Your task to perform on an android device: Search for sushi restaurants on Maps Image 0: 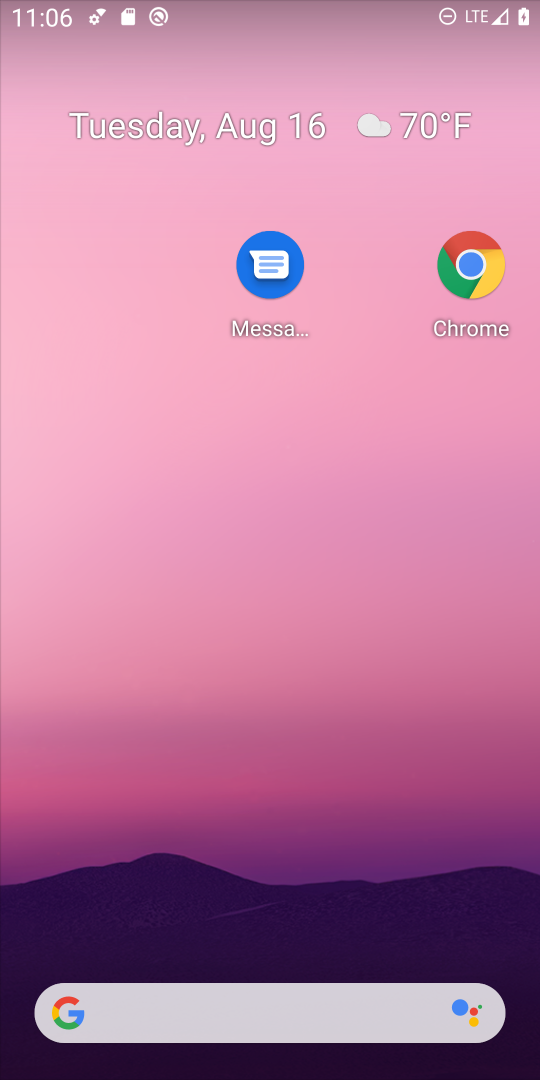
Step 0: drag from (278, 323) to (283, 115)
Your task to perform on an android device: Search for sushi restaurants on Maps Image 1: 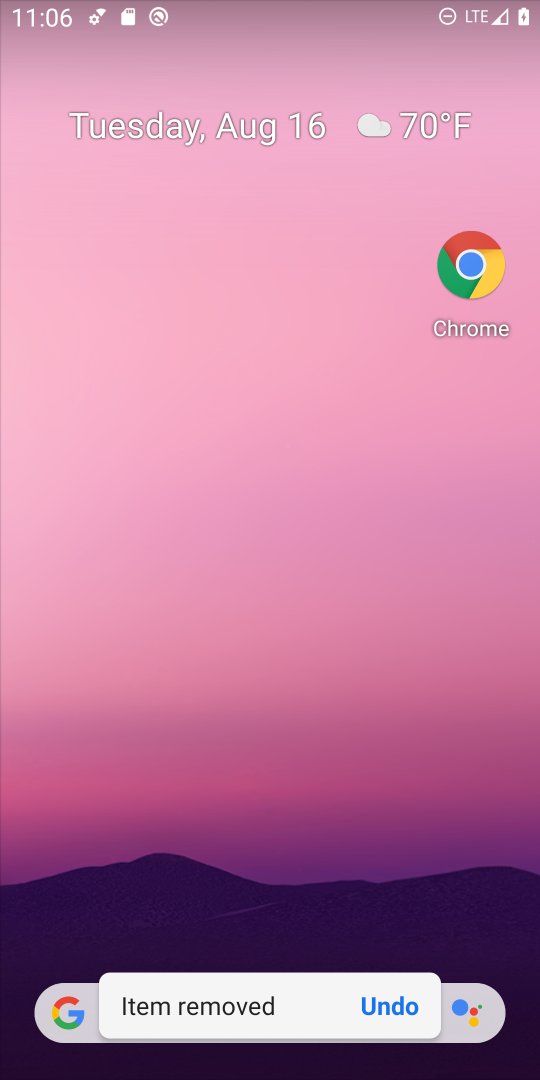
Step 1: drag from (318, 705) to (332, 72)
Your task to perform on an android device: Search for sushi restaurants on Maps Image 2: 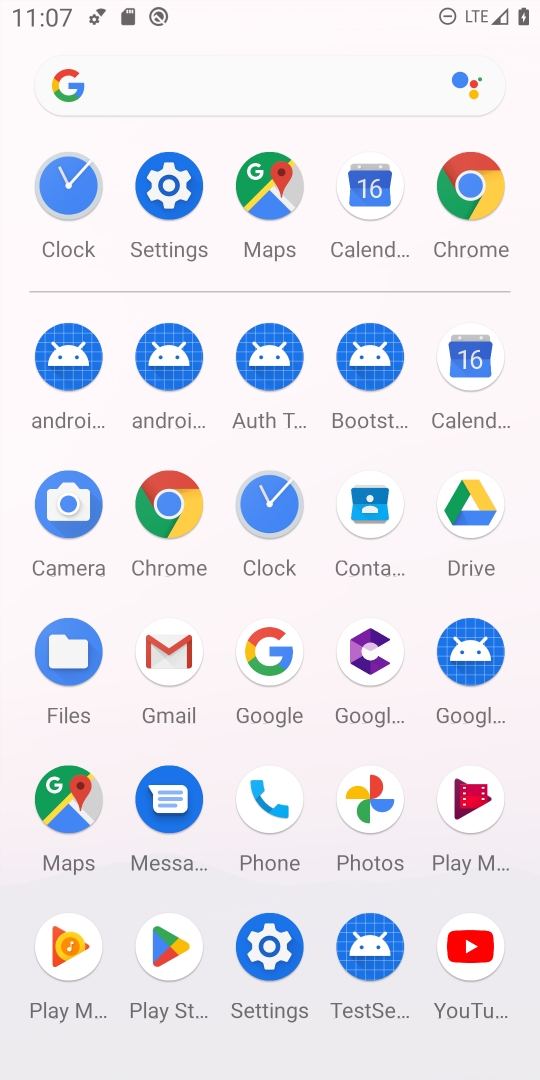
Step 2: click (76, 823)
Your task to perform on an android device: Search for sushi restaurants on Maps Image 3: 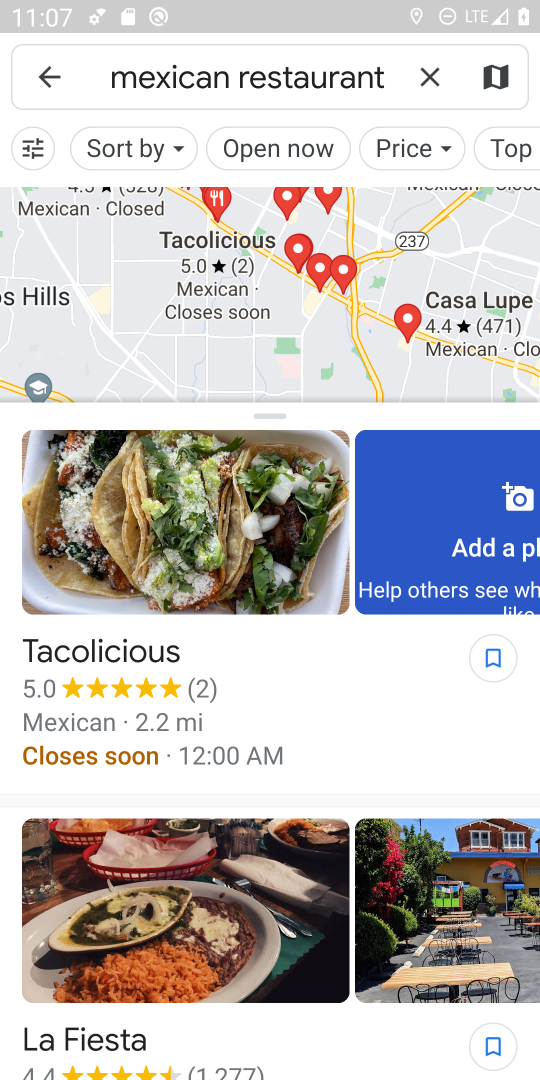
Step 3: click (434, 82)
Your task to perform on an android device: Search for sushi restaurants on Maps Image 4: 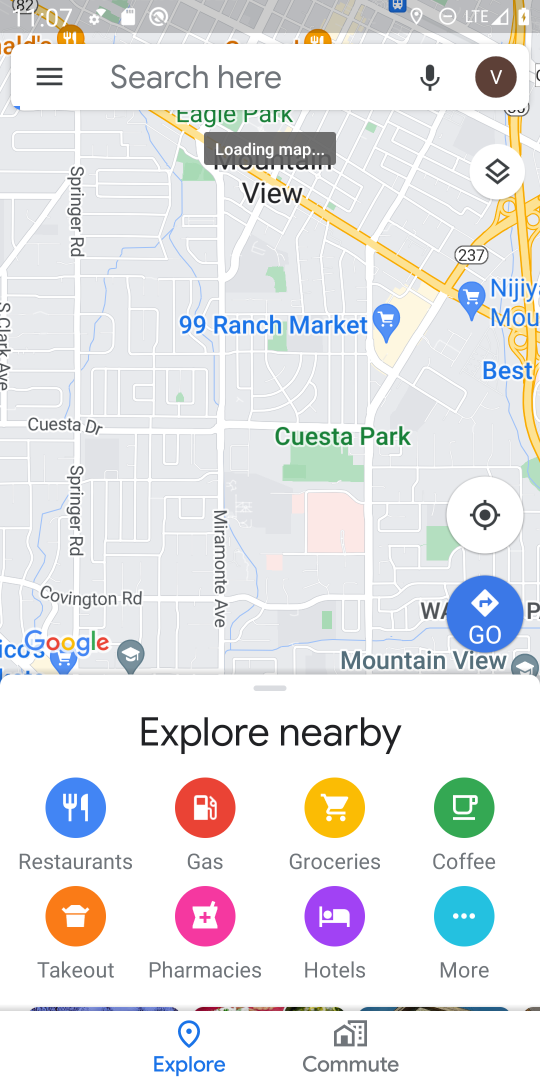
Step 4: click (56, 80)
Your task to perform on an android device: Search for sushi restaurants on Maps Image 5: 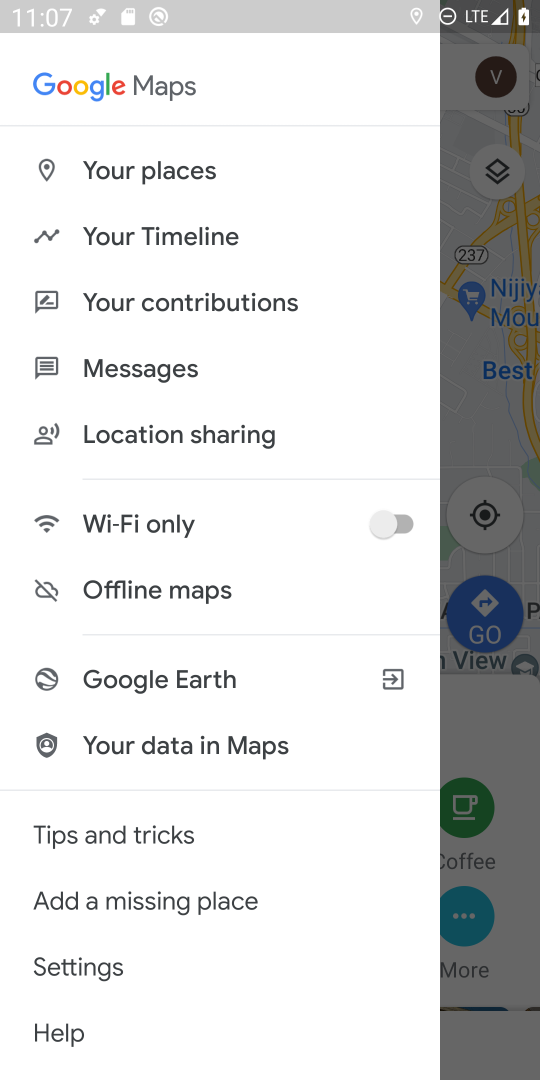
Step 5: click (508, 299)
Your task to perform on an android device: Search for sushi restaurants on Maps Image 6: 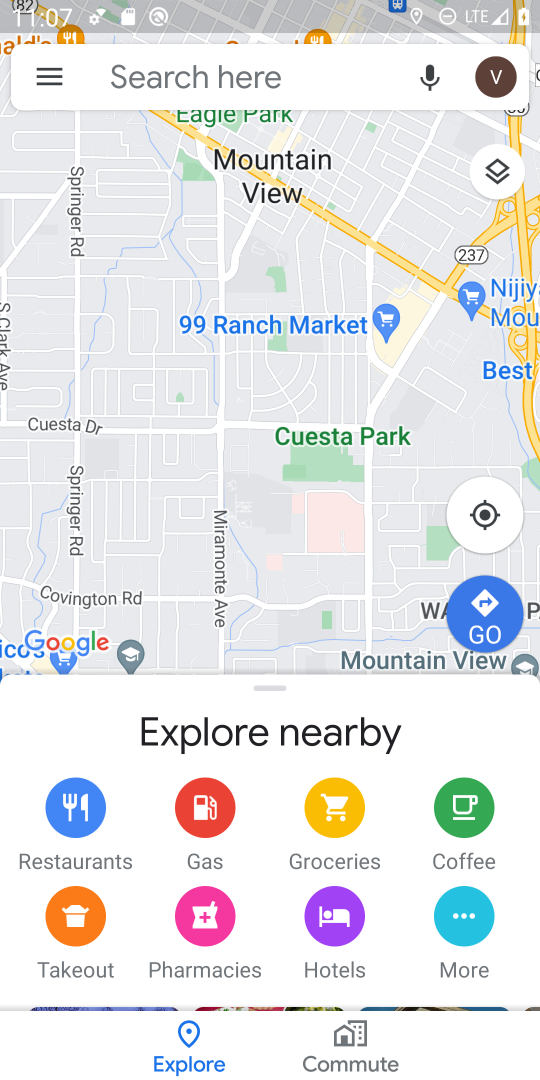
Step 6: click (180, 75)
Your task to perform on an android device: Search for sushi restaurants on Maps Image 7: 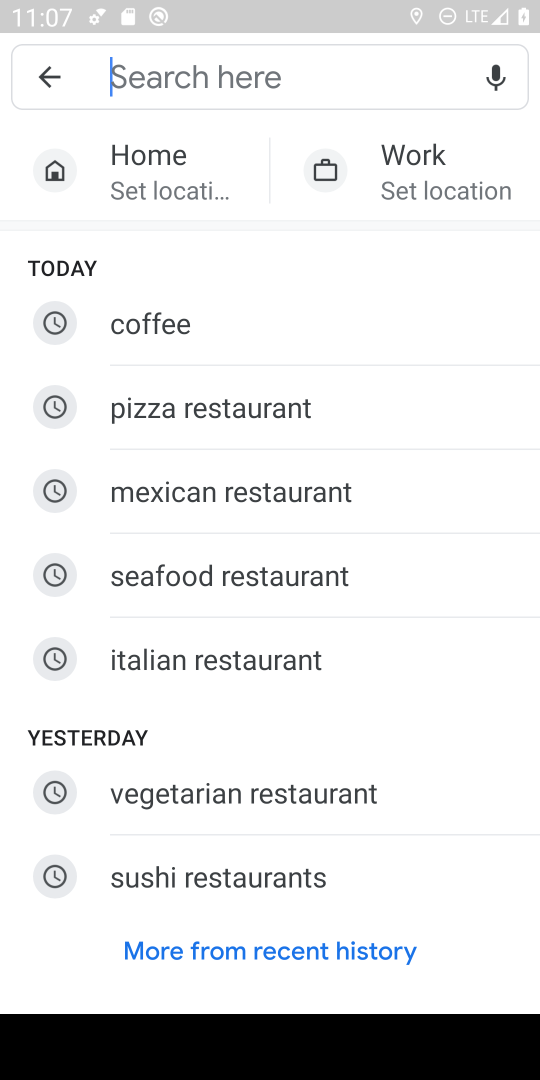
Step 7: type "sushi"
Your task to perform on an android device: Search for sushi restaurants on Maps Image 8: 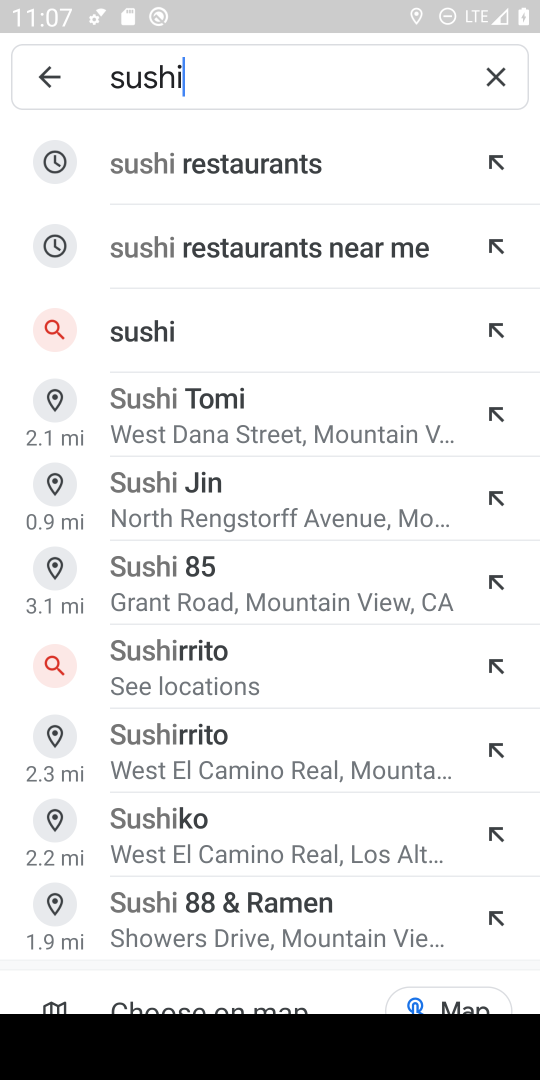
Step 8: click (304, 157)
Your task to perform on an android device: Search for sushi restaurants on Maps Image 9: 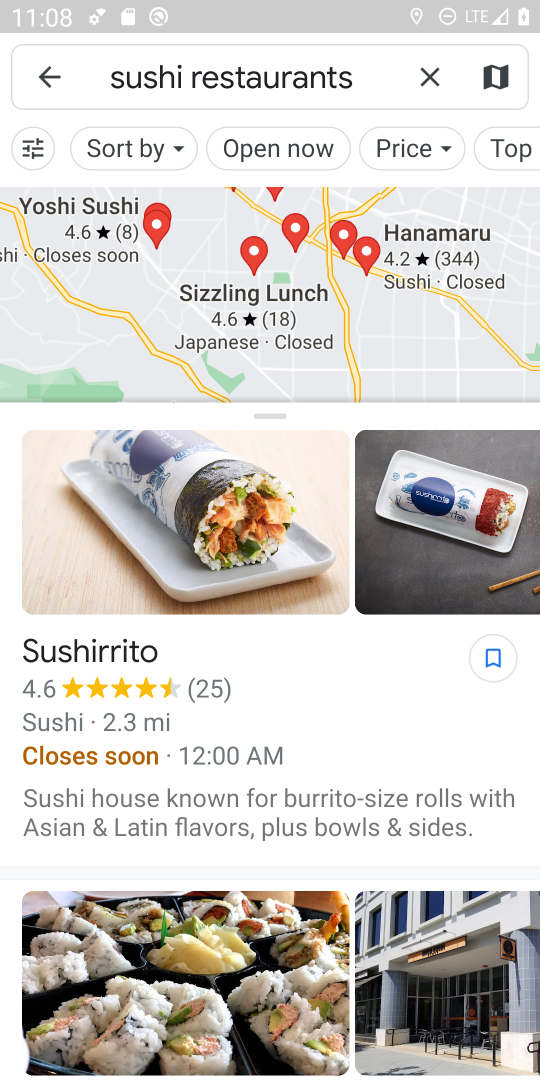
Step 9: task complete